Your task to perform on an android device: Search for flights from London to Paris Image 0: 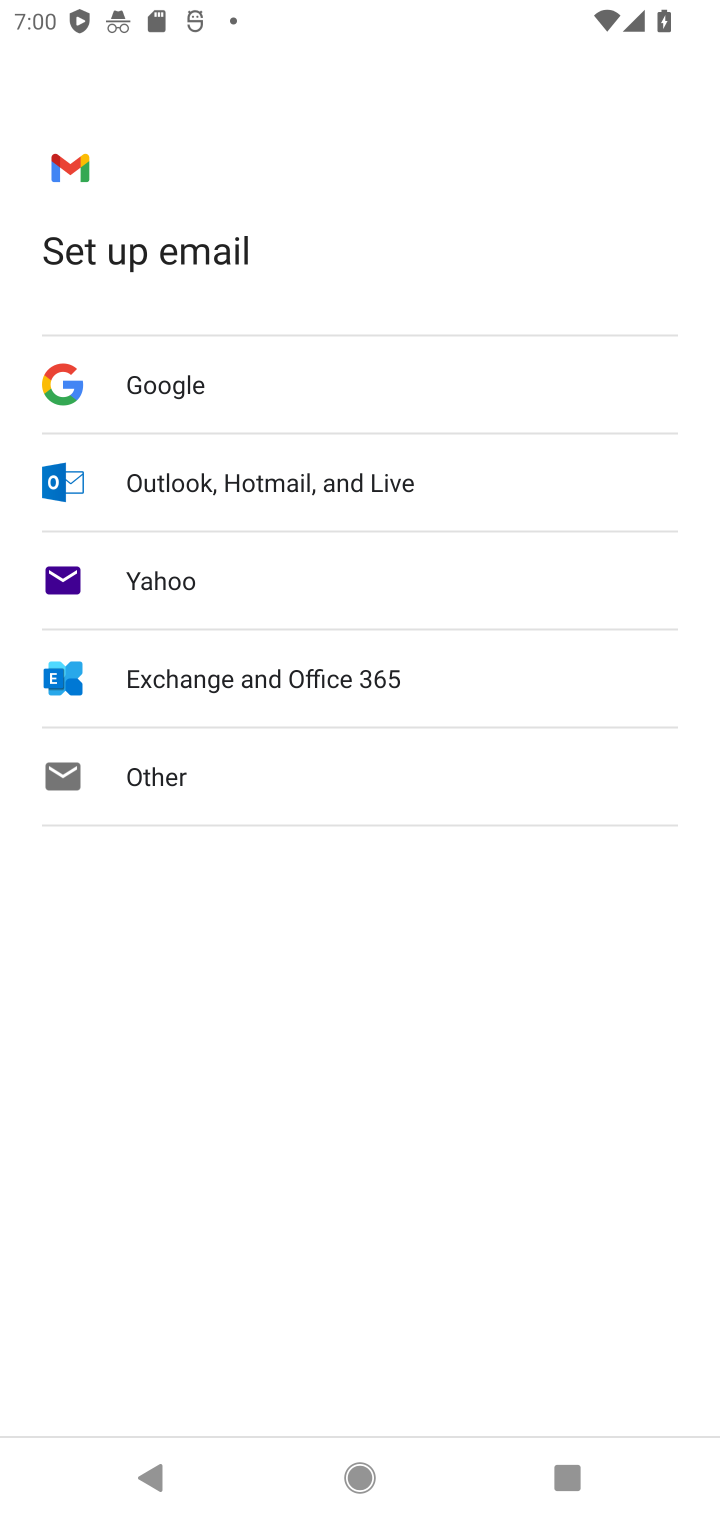
Step 0: press home button
Your task to perform on an android device: Search for flights from London to Paris Image 1: 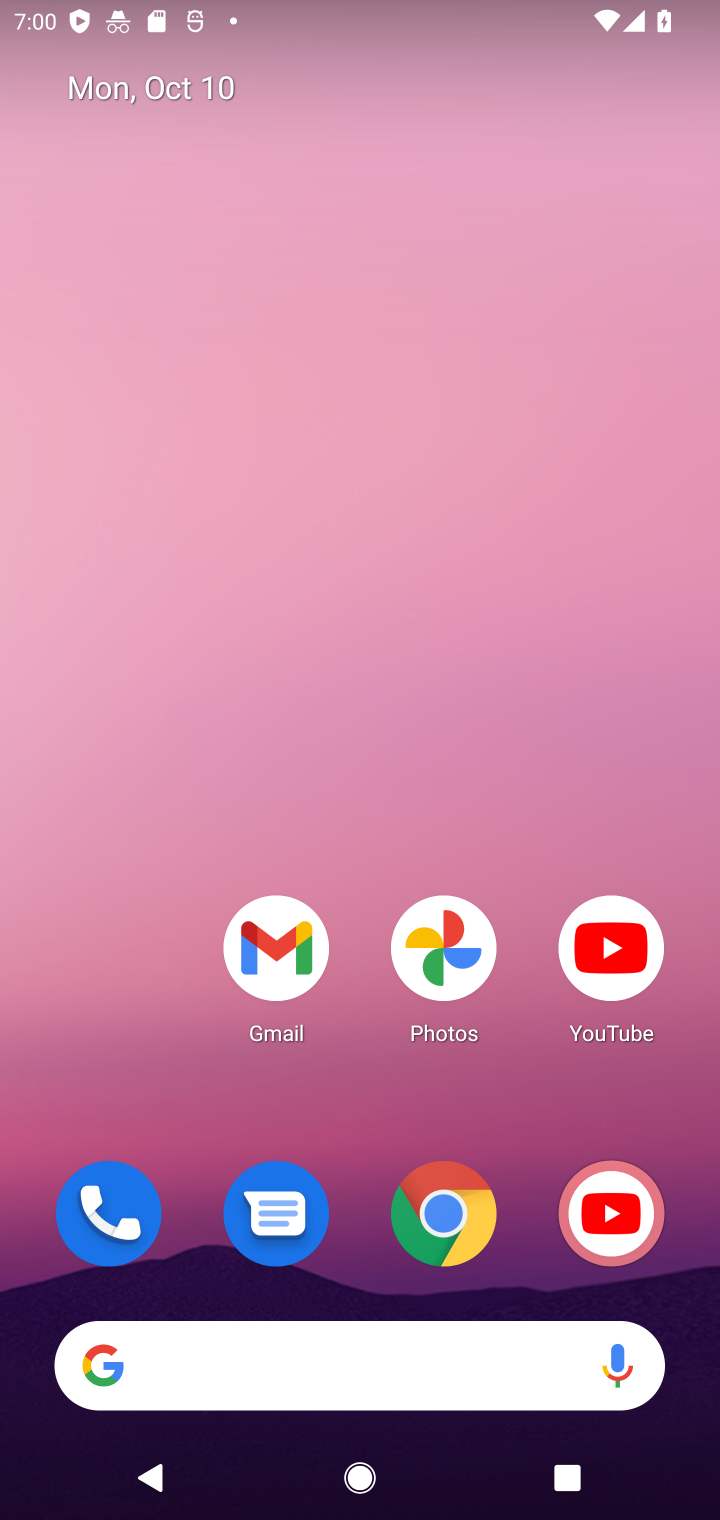
Step 1: click (292, 1381)
Your task to perform on an android device: Search for flights from London to Paris Image 2: 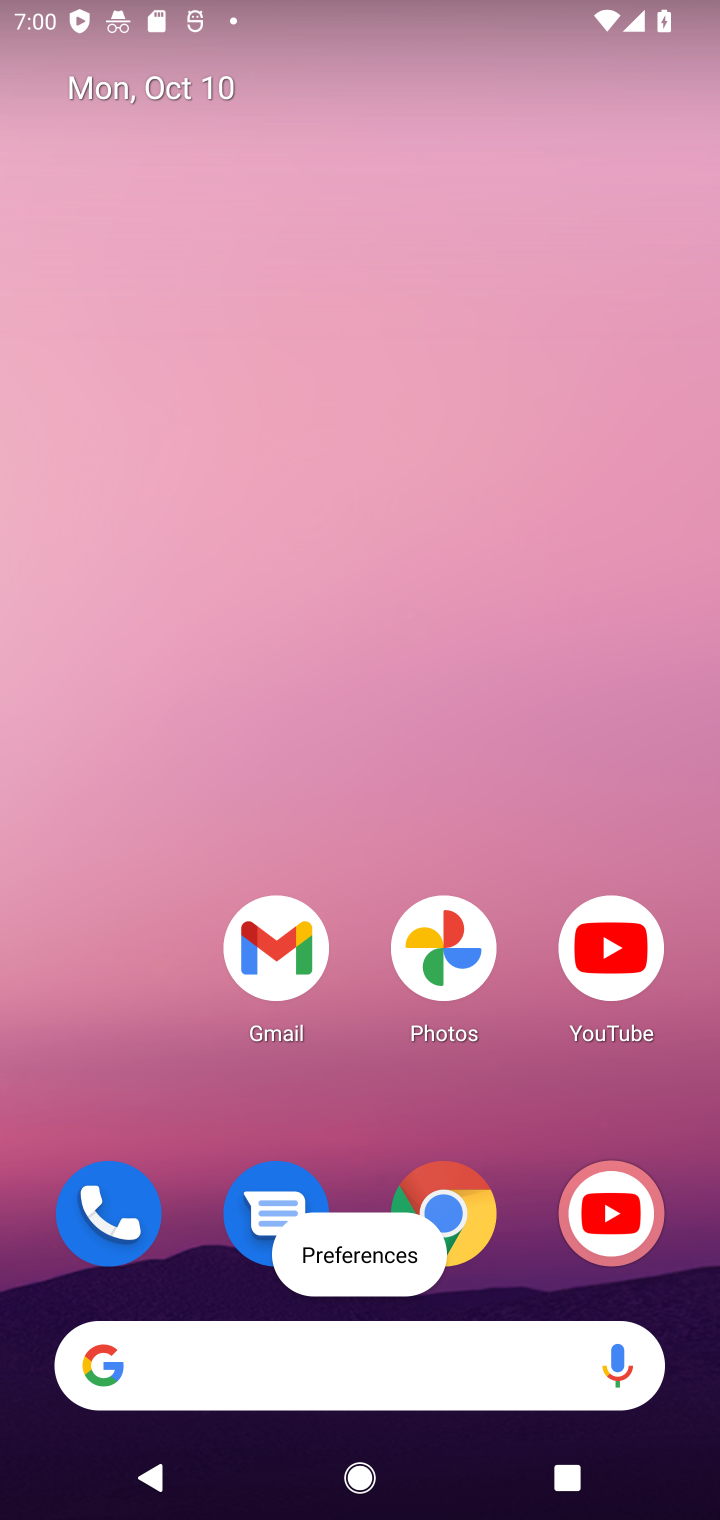
Step 2: click (358, 1357)
Your task to perform on an android device: Search for flights from London to Paris Image 3: 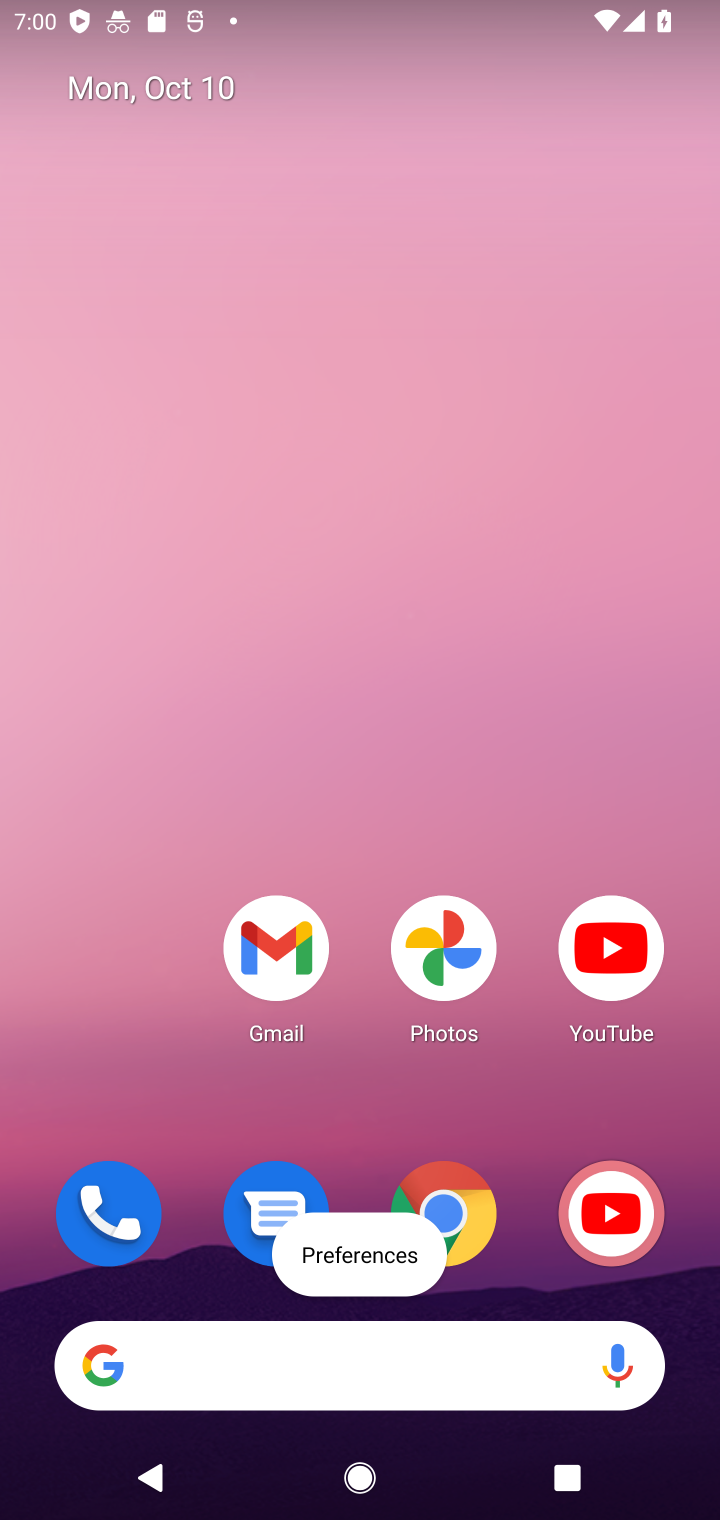
Step 3: click (307, 1361)
Your task to perform on an android device: Search for flights from London to Paris Image 4: 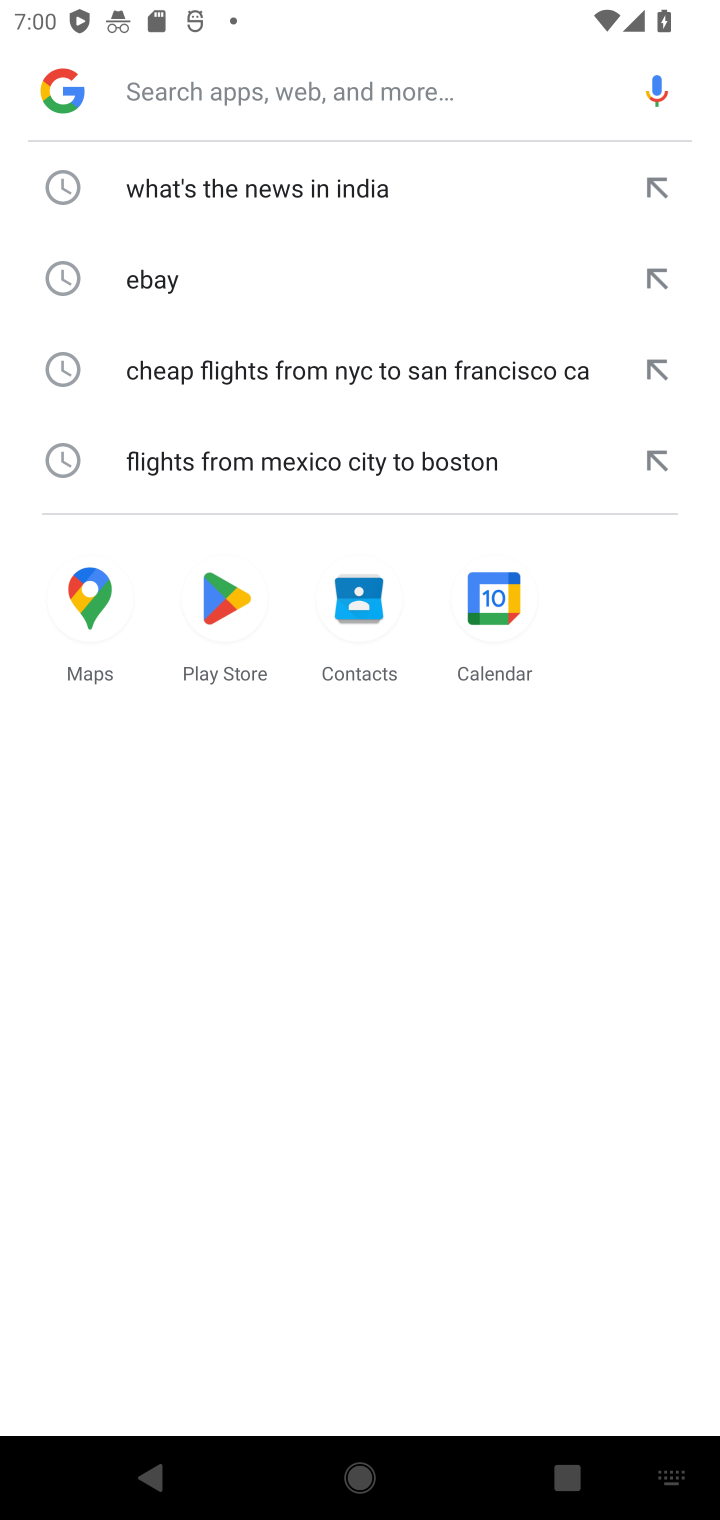
Step 4: click (223, 85)
Your task to perform on an android device: Search for flights from London to Paris Image 5: 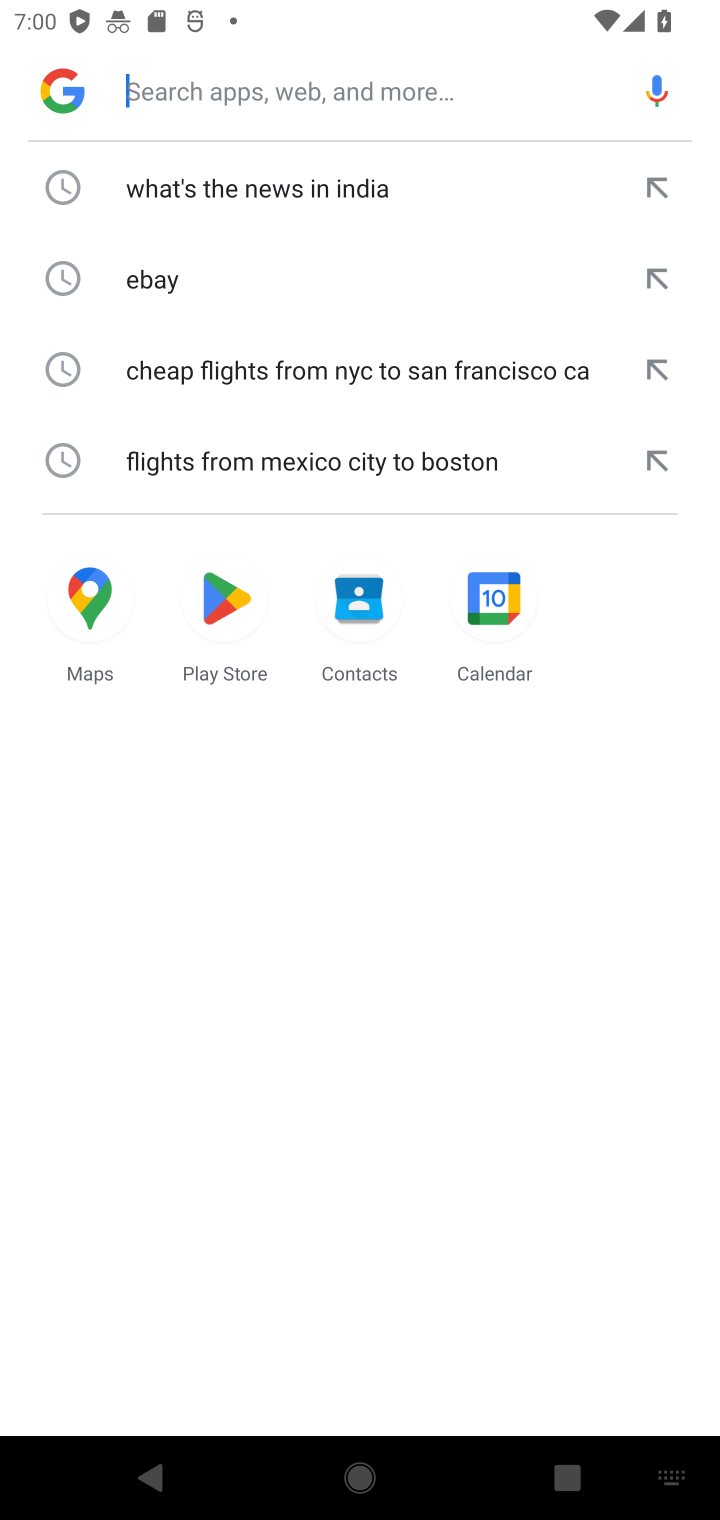
Step 5: type "flights from London to Paris"
Your task to perform on an android device: Search for flights from London to Paris Image 6: 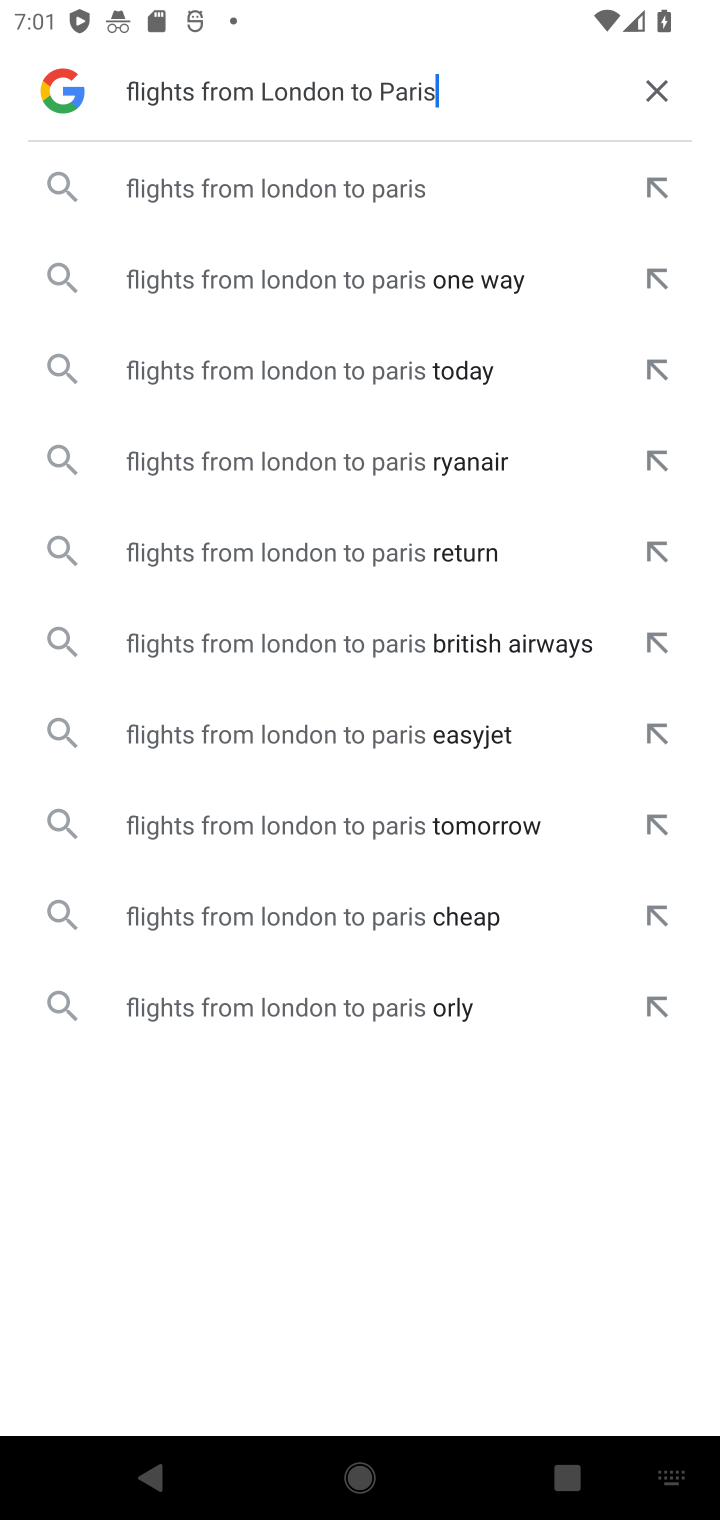
Step 6: click (402, 193)
Your task to perform on an android device: Search for flights from London to Paris Image 7: 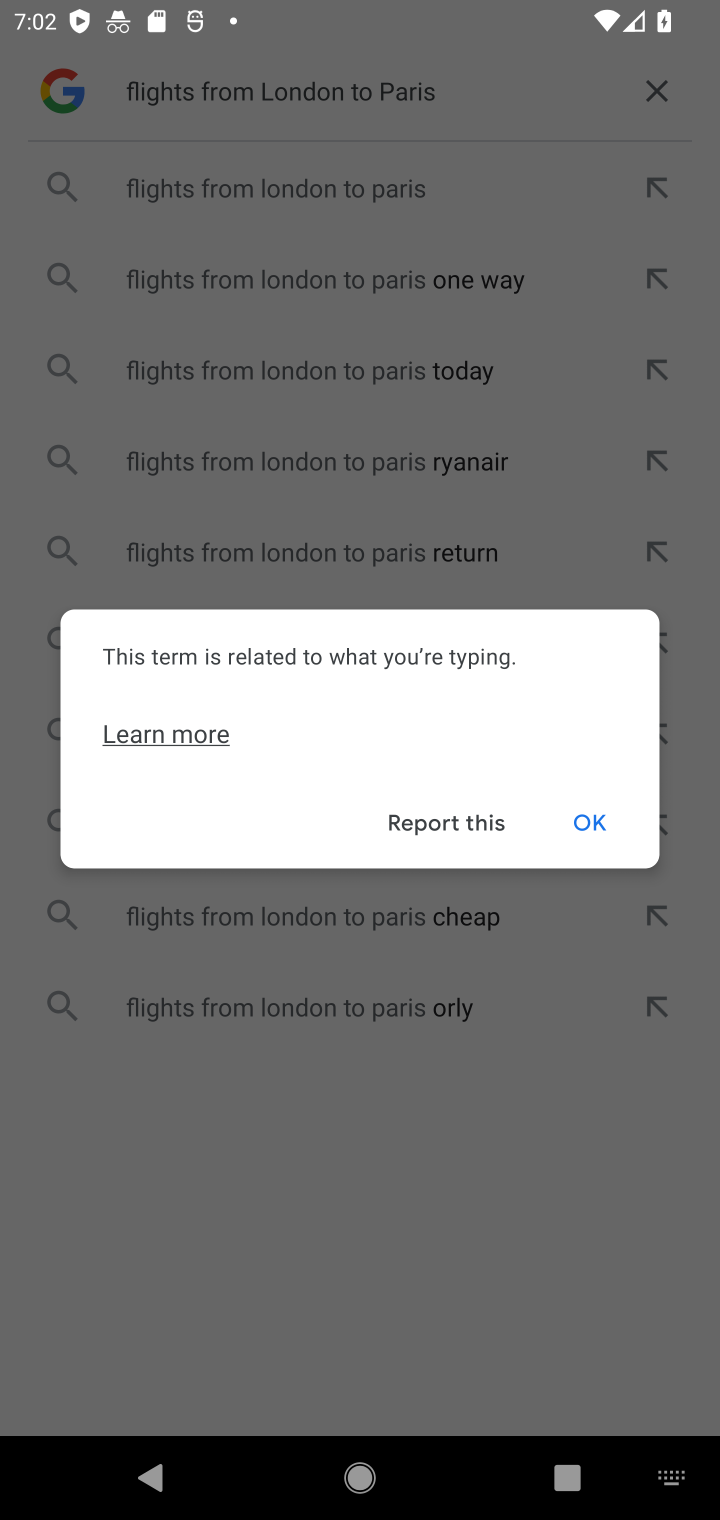
Step 7: click (594, 831)
Your task to perform on an android device: Search for flights from London to Paris Image 8: 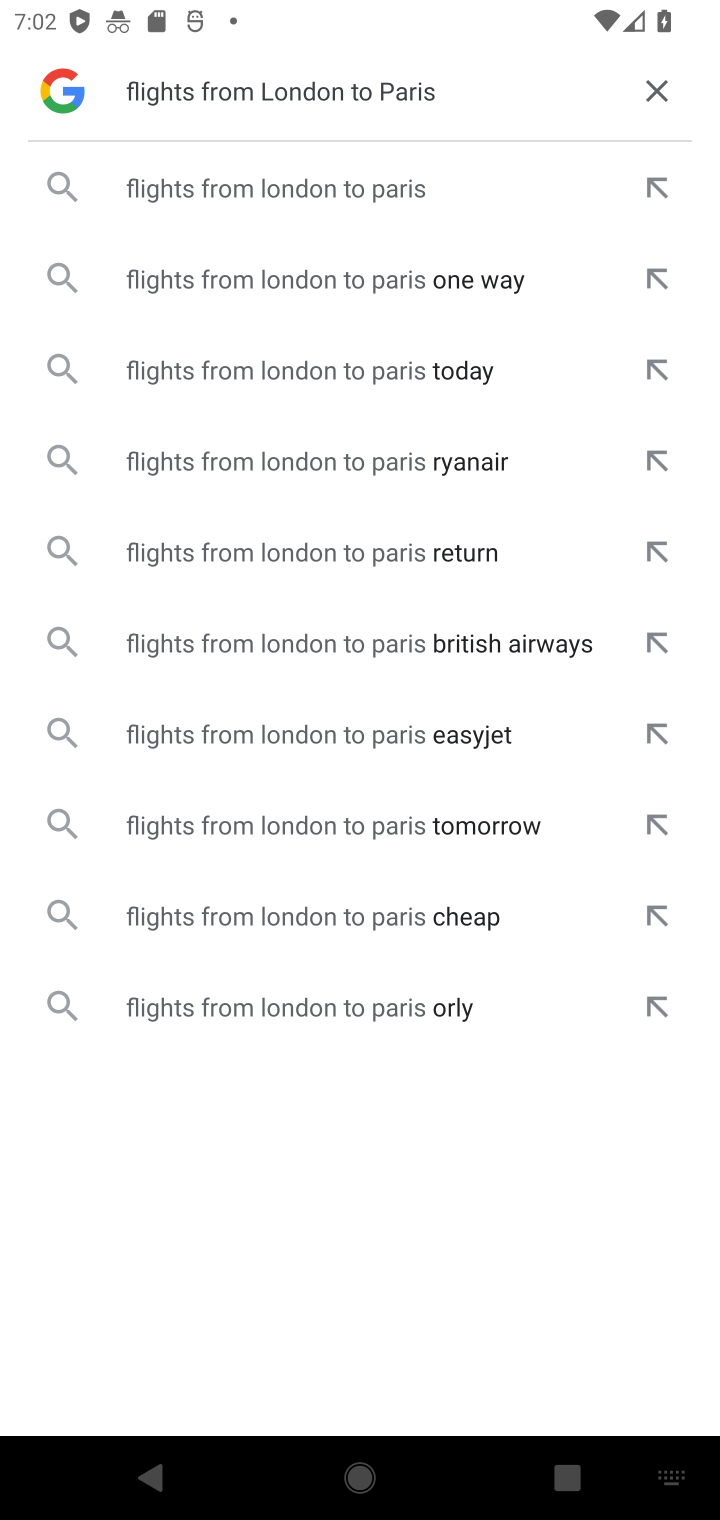
Step 8: click (337, 179)
Your task to perform on an android device: Search for flights from London to Paris Image 9: 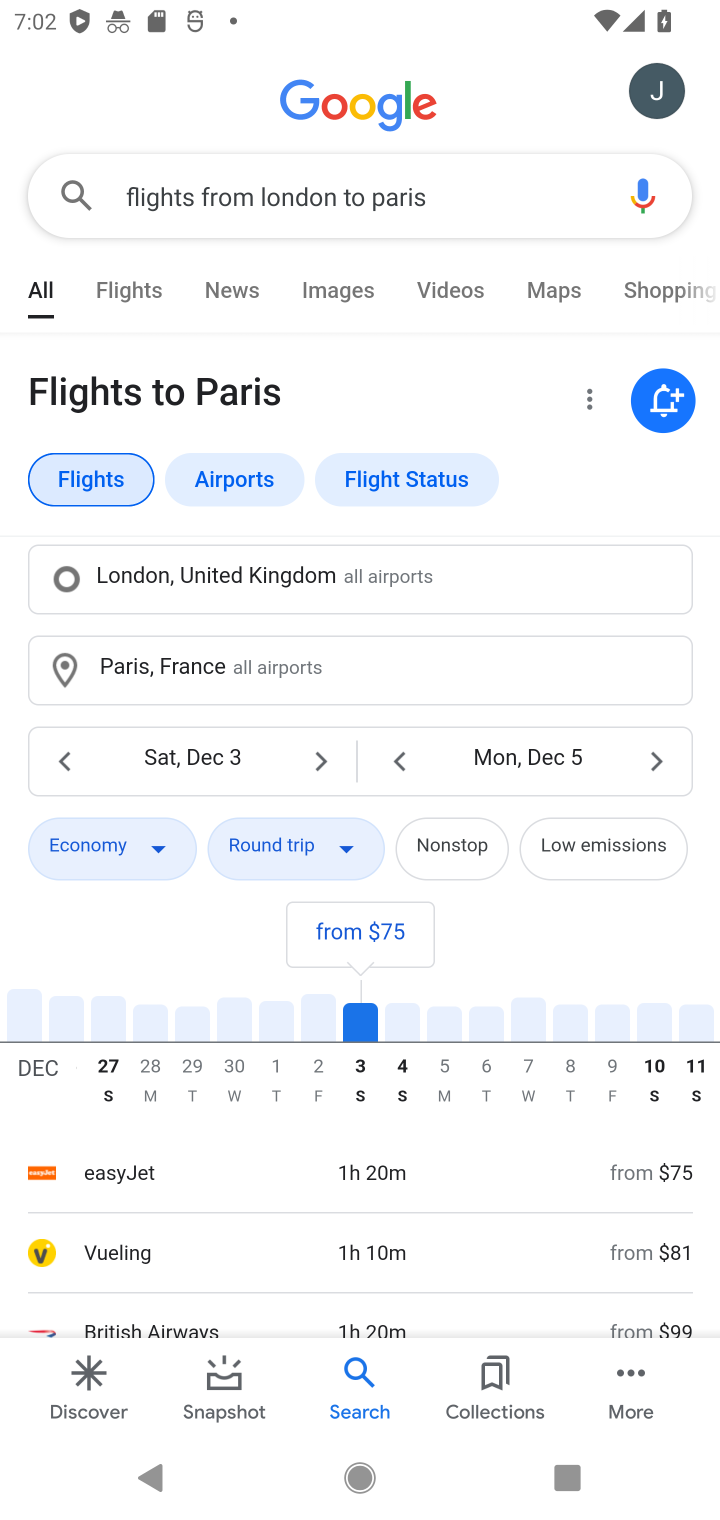
Step 9: task complete